Your task to perform on an android device: change the clock display to show seconds Image 0: 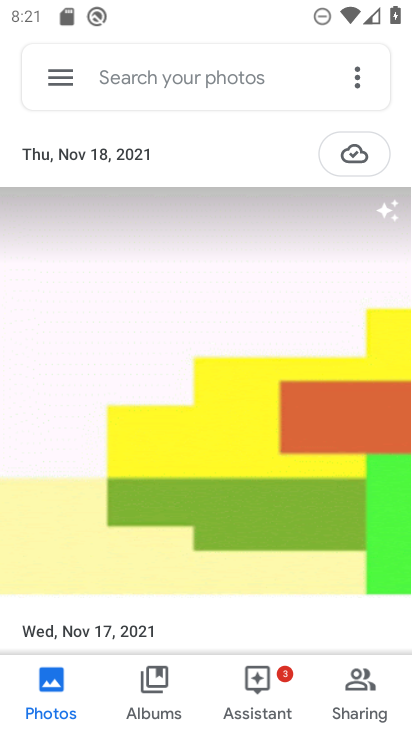
Step 0: press back button
Your task to perform on an android device: change the clock display to show seconds Image 1: 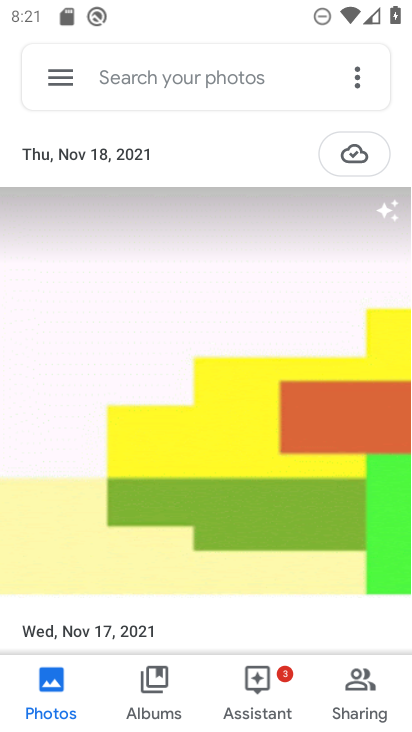
Step 1: press home button
Your task to perform on an android device: change the clock display to show seconds Image 2: 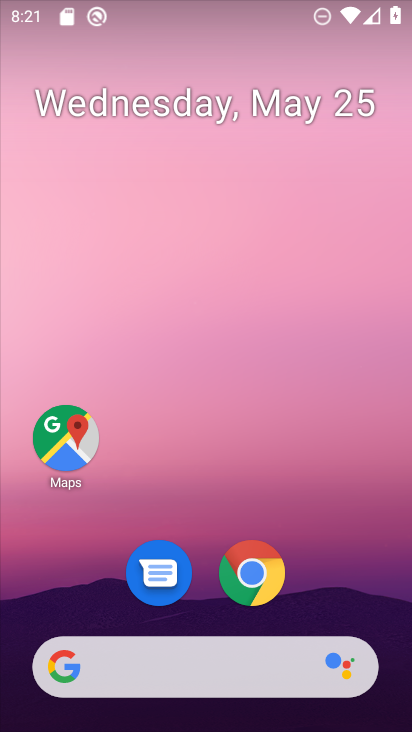
Step 2: drag from (392, 714) to (313, 221)
Your task to perform on an android device: change the clock display to show seconds Image 3: 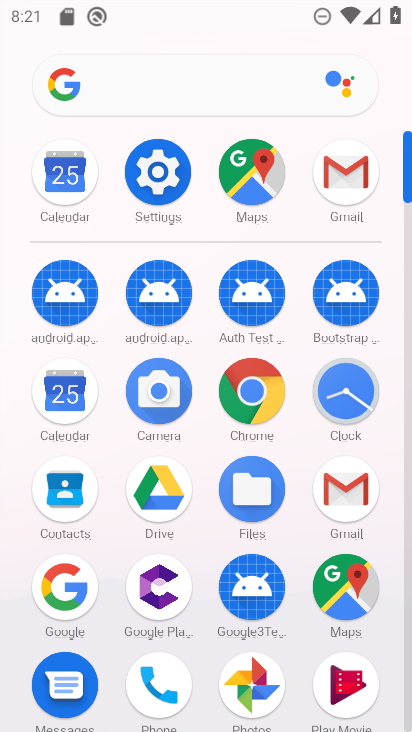
Step 3: click (360, 404)
Your task to perform on an android device: change the clock display to show seconds Image 4: 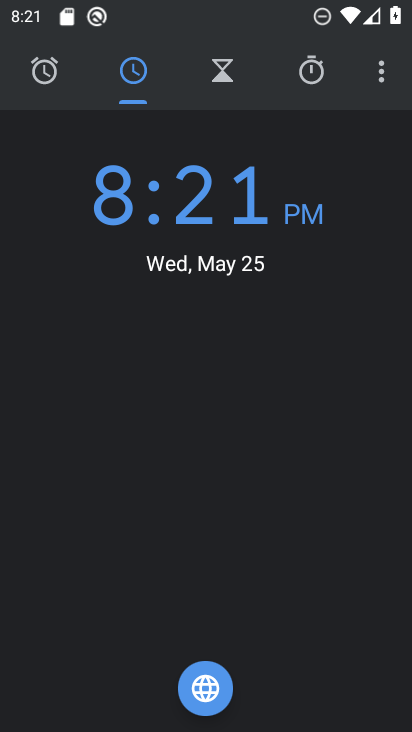
Step 4: click (375, 71)
Your task to perform on an android device: change the clock display to show seconds Image 5: 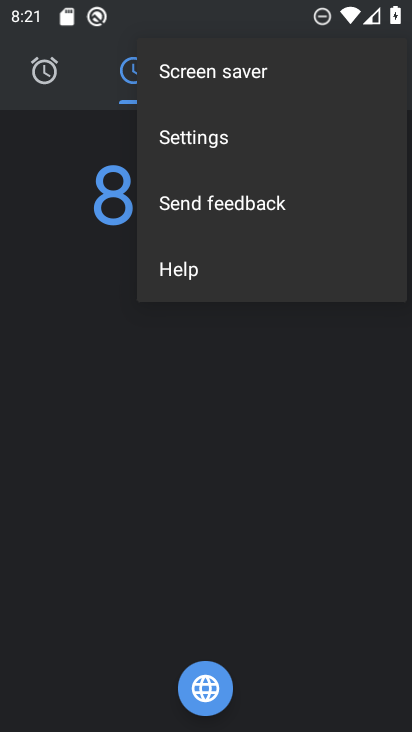
Step 5: click (204, 131)
Your task to perform on an android device: change the clock display to show seconds Image 6: 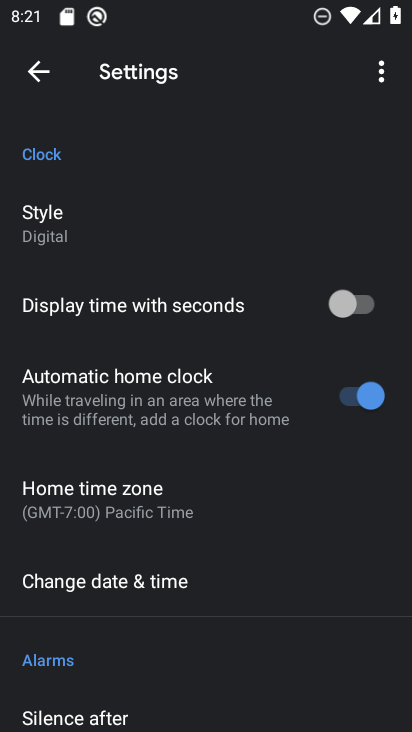
Step 6: click (363, 304)
Your task to perform on an android device: change the clock display to show seconds Image 7: 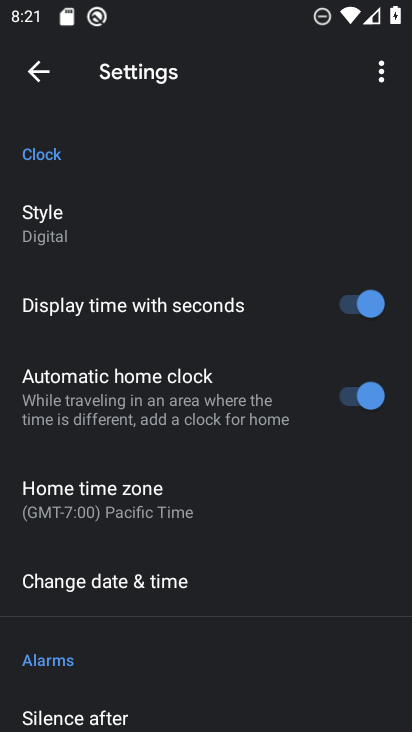
Step 7: task complete